Your task to perform on an android device: toggle wifi Image 0: 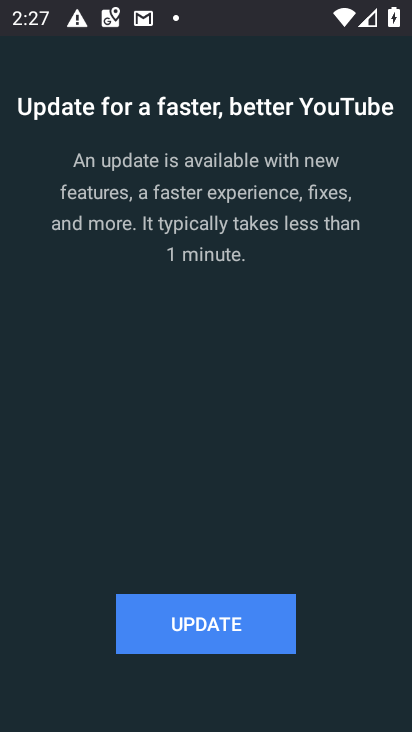
Step 0: press home button
Your task to perform on an android device: toggle wifi Image 1: 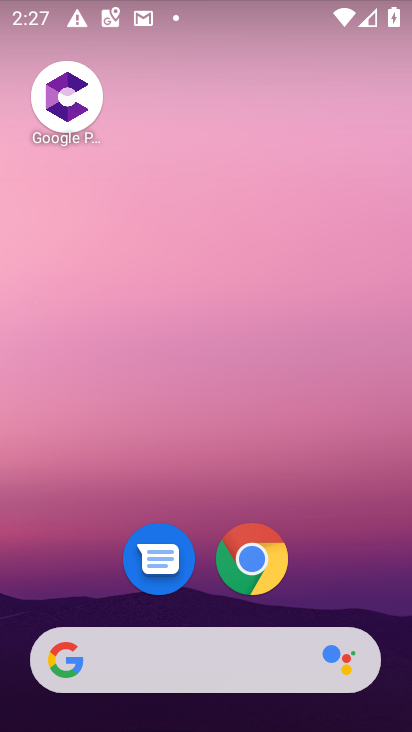
Step 1: drag from (375, 596) to (328, 170)
Your task to perform on an android device: toggle wifi Image 2: 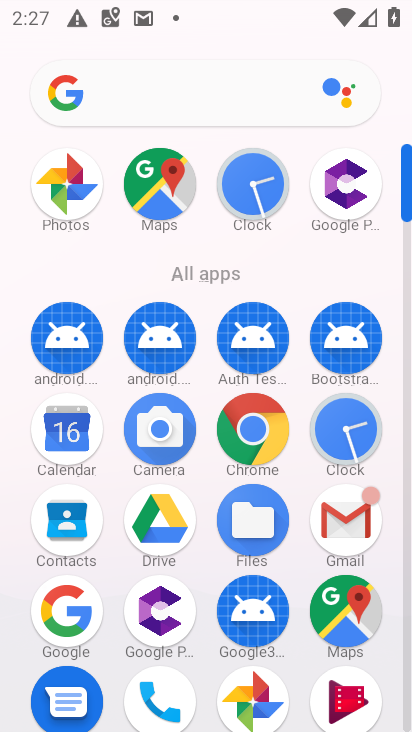
Step 2: click (408, 679)
Your task to perform on an android device: toggle wifi Image 3: 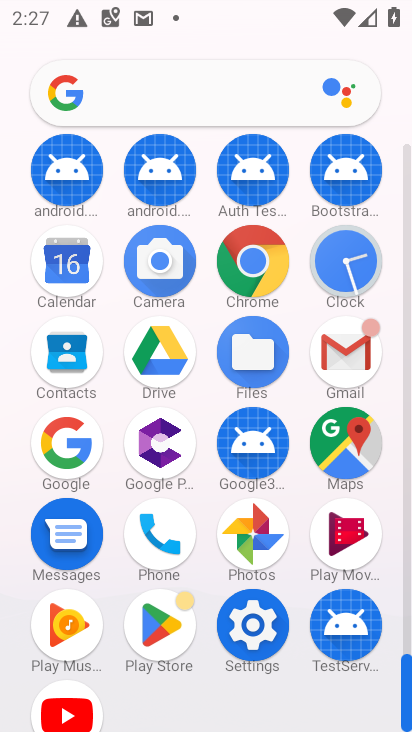
Step 3: click (253, 624)
Your task to perform on an android device: toggle wifi Image 4: 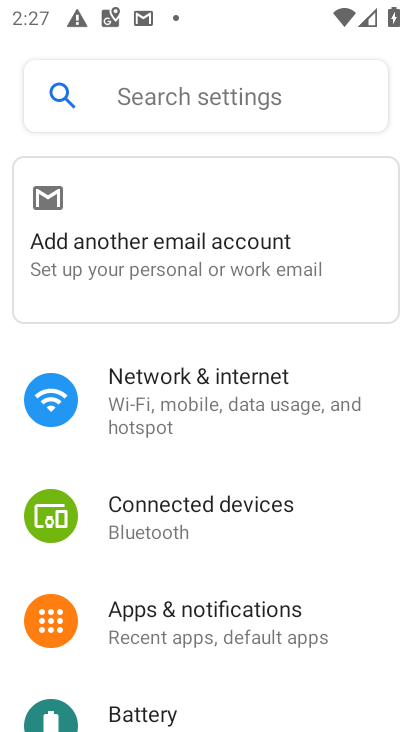
Step 4: click (170, 387)
Your task to perform on an android device: toggle wifi Image 5: 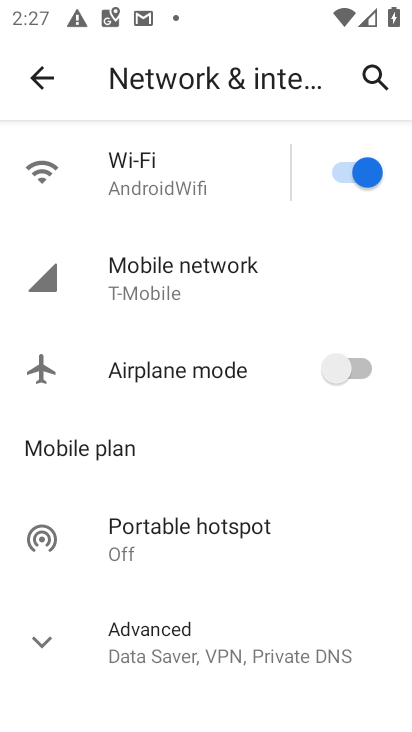
Step 5: click (343, 174)
Your task to perform on an android device: toggle wifi Image 6: 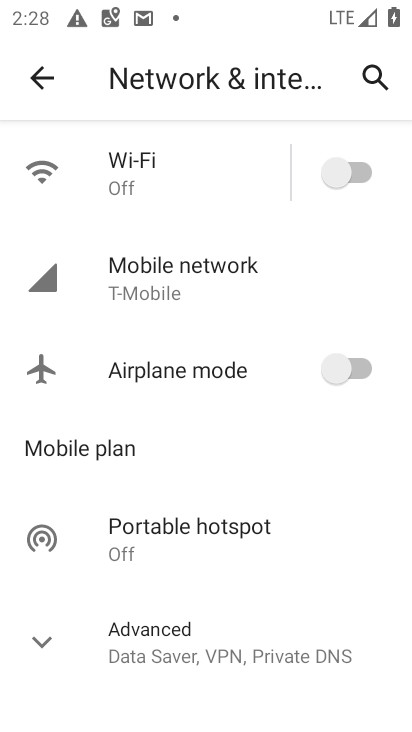
Step 6: task complete